Your task to perform on an android device: Clear the cart on newegg. Search for bose quietcomfort 35 on newegg, select the first entry, and add it to the cart. Image 0: 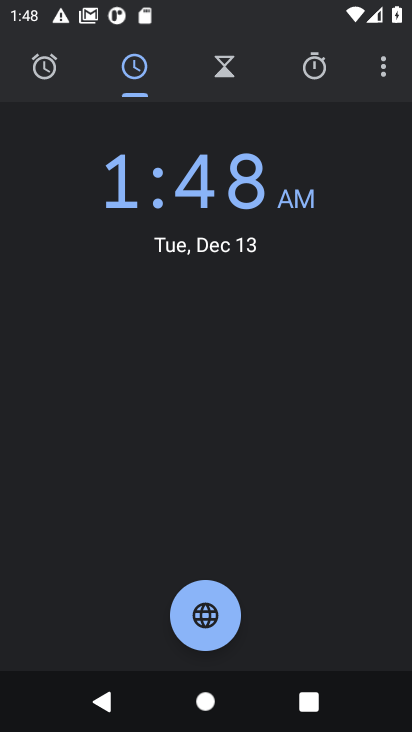
Step 0: press home button
Your task to perform on an android device: Clear the cart on newegg. Search for bose quietcomfort 35 on newegg, select the first entry, and add it to the cart. Image 1: 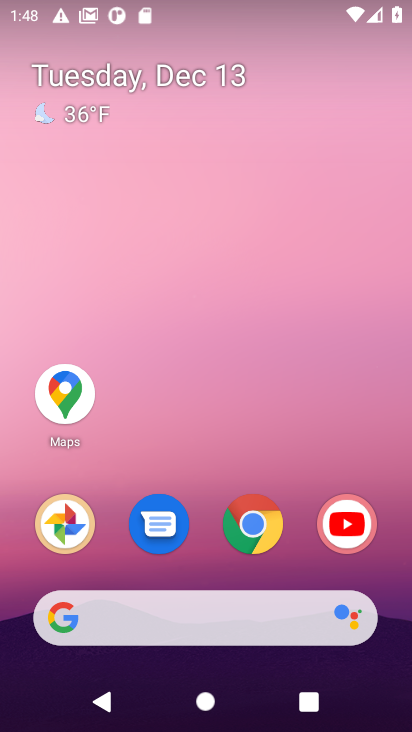
Step 1: click (254, 530)
Your task to perform on an android device: Clear the cart on newegg. Search for bose quietcomfort 35 on newegg, select the first entry, and add it to the cart. Image 2: 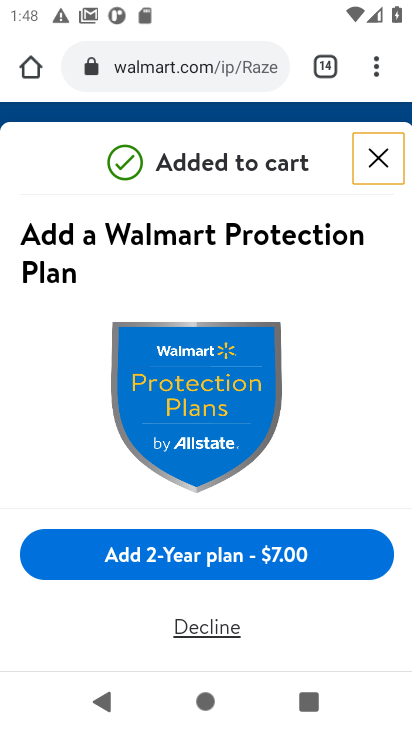
Step 2: click (210, 70)
Your task to perform on an android device: Clear the cart on newegg. Search for bose quietcomfort 35 on newegg, select the first entry, and add it to the cart. Image 3: 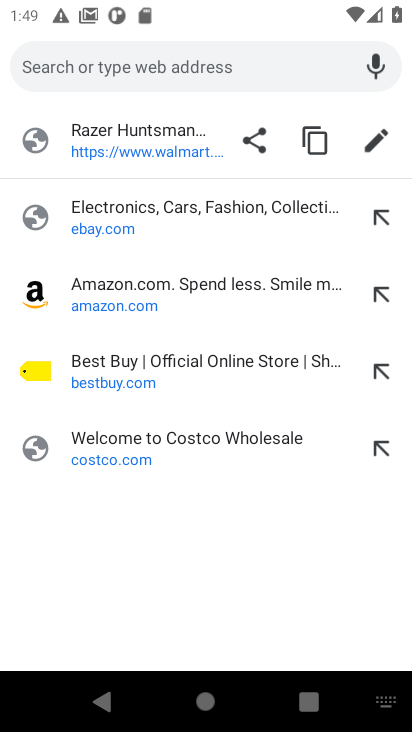
Step 3: type "newegg.com"
Your task to perform on an android device: Clear the cart on newegg. Search for bose quietcomfort 35 on newegg, select the first entry, and add it to the cart. Image 4: 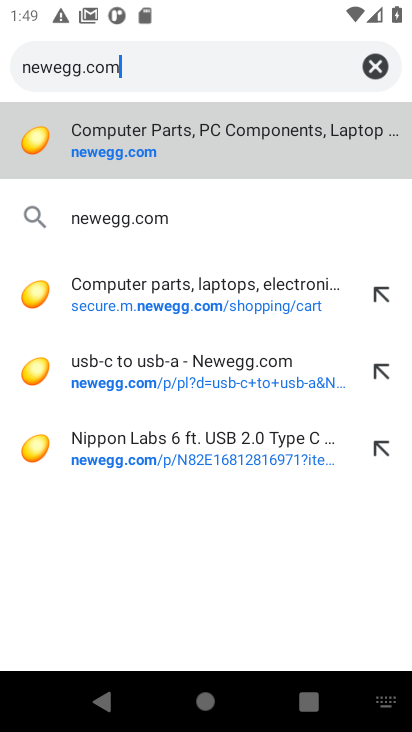
Step 4: click (111, 151)
Your task to perform on an android device: Clear the cart on newegg. Search for bose quietcomfort 35 on newegg, select the first entry, and add it to the cart. Image 5: 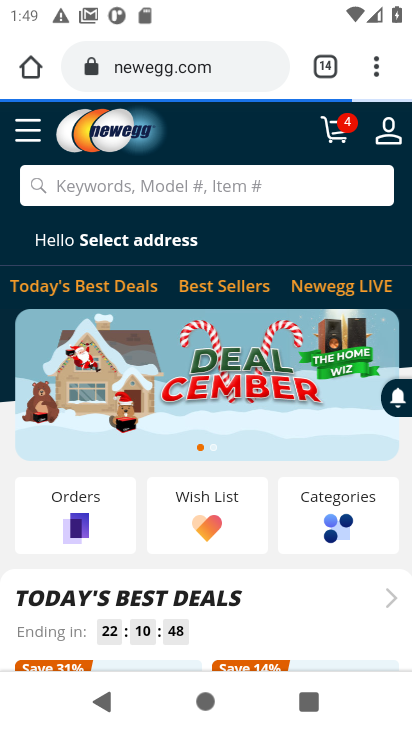
Step 5: click (337, 131)
Your task to perform on an android device: Clear the cart on newegg. Search for bose quietcomfort 35 on newegg, select the first entry, and add it to the cart. Image 6: 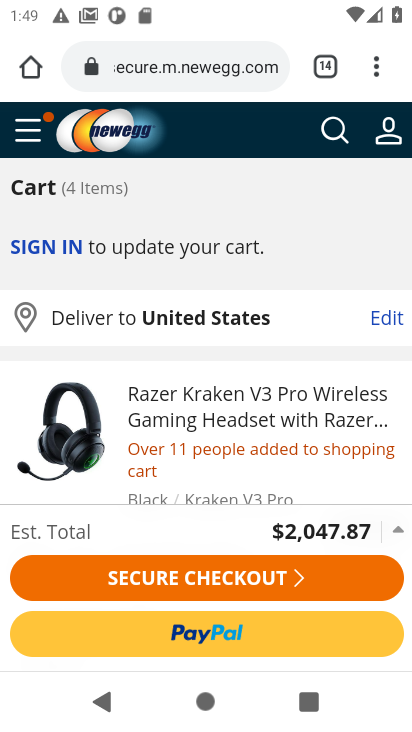
Step 6: drag from (184, 425) to (186, 256)
Your task to perform on an android device: Clear the cart on newegg. Search for bose quietcomfort 35 on newegg, select the first entry, and add it to the cart. Image 7: 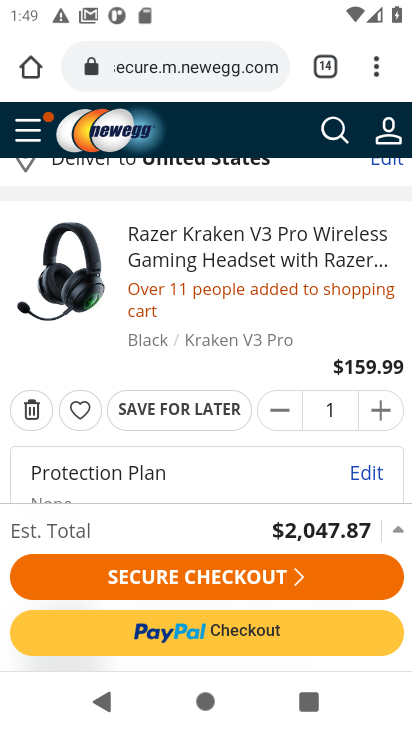
Step 7: click (30, 411)
Your task to perform on an android device: Clear the cart on newegg. Search for bose quietcomfort 35 on newegg, select the first entry, and add it to the cart. Image 8: 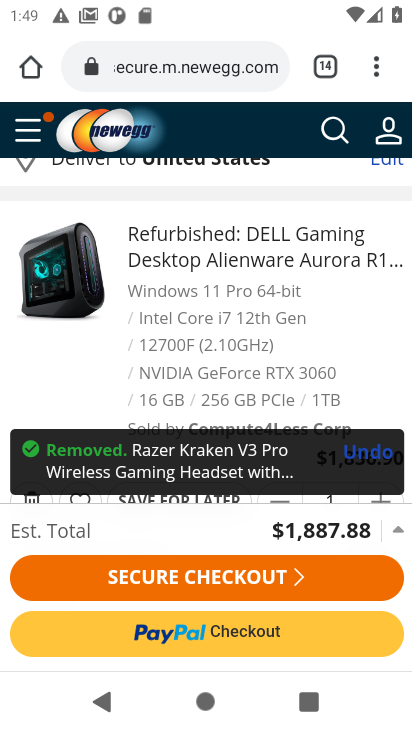
Step 8: drag from (240, 368) to (232, 233)
Your task to perform on an android device: Clear the cart on newegg. Search for bose quietcomfort 35 on newegg, select the first entry, and add it to the cart. Image 9: 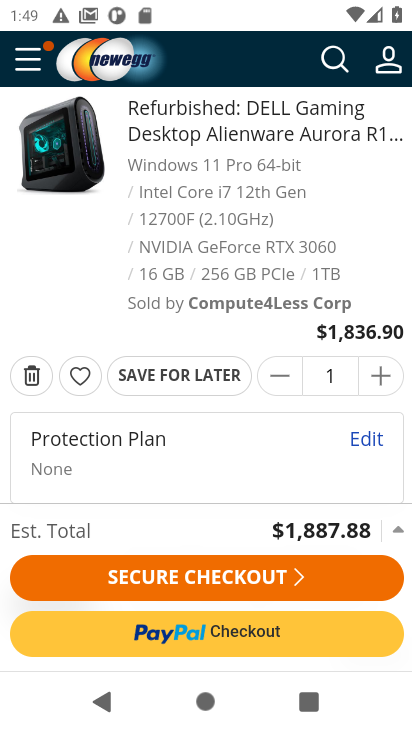
Step 9: click (27, 379)
Your task to perform on an android device: Clear the cart on newegg. Search for bose quietcomfort 35 on newegg, select the first entry, and add it to the cart. Image 10: 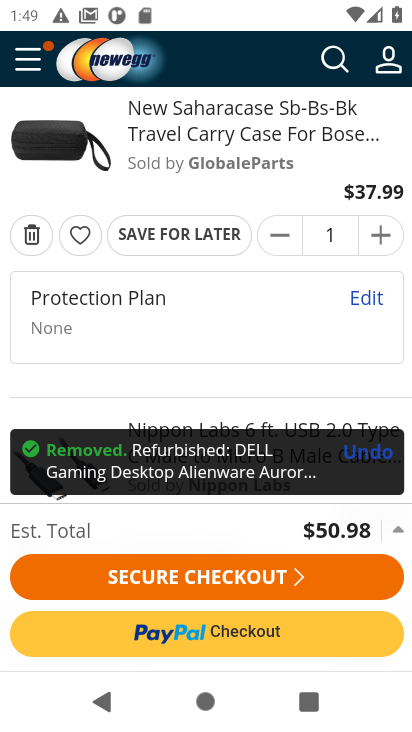
Step 10: click (31, 231)
Your task to perform on an android device: Clear the cart on newegg. Search for bose quietcomfort 35 on newegg, select the first entry, and add it to the cart. Image 11: 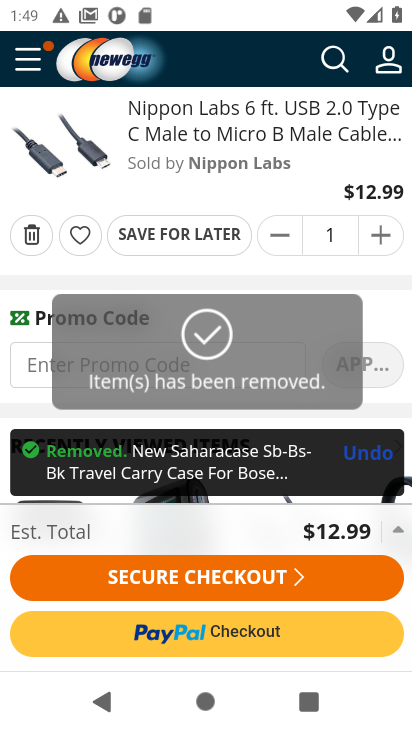
Step 11: click (28, 234)
Your task to perform on an android device: Clear the cart on newegg. Search for bose quietcomfort 35 on newegg, select the first entry, and add it to the cart. Image 12: 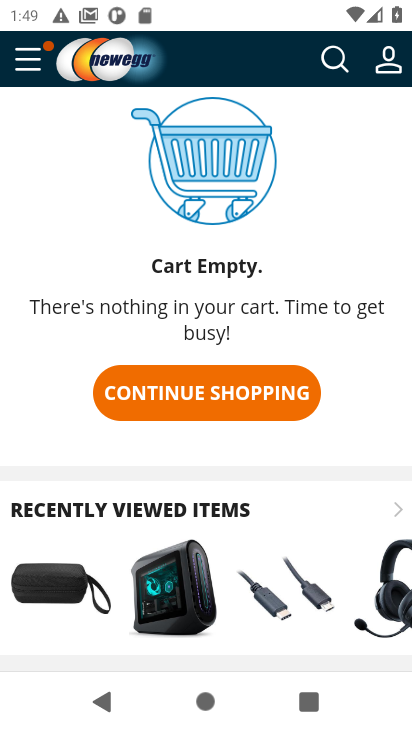
Step 12: click (340, 61)
Your task to perform on an android device: Clear the cart on newegg. Search for bose quietcomfort 35 on newegg, select the first entry, and add it to the cart. Image 13: 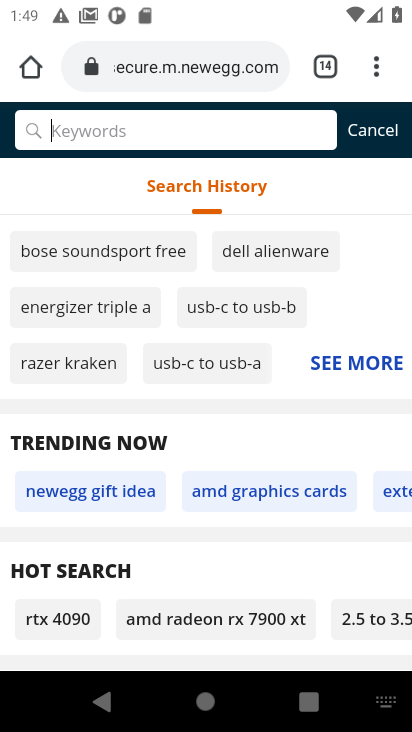
Step 13: type "bose quietcomfort 35"
Your task to perform on an android device: Clear the cart on newegg. Search for bose quietcomfort 35 on newegg, select the first entry, and add it to the cart. Image 14: 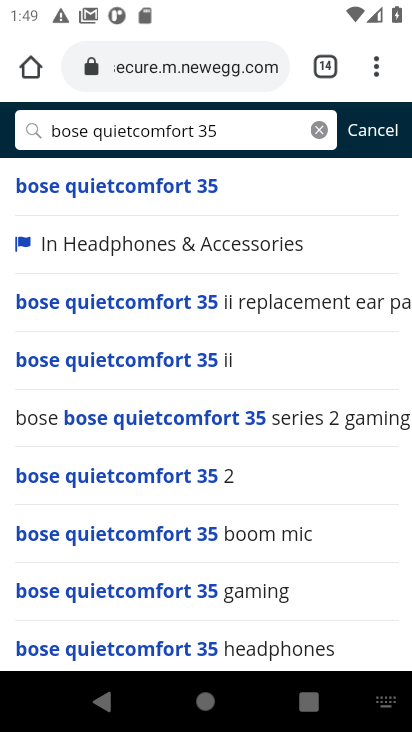
Step 14: click (146, 189)
Your task to perform on an android device: Clear the cart on newegg. Search for bose quietcomfort 35 on newegg, select the first entry, and add it to the cart. Image 15: 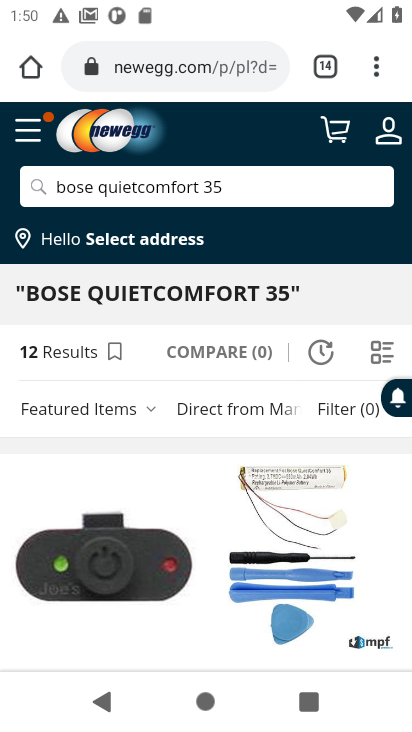
Step 15: drag from (215, 577) to (210, 315)
Your task to perform on an android device: Clear the cart on newegg. Search for bose quietcomfort 35 on newegg, select the first entry, and add it to the cart. Image 16: 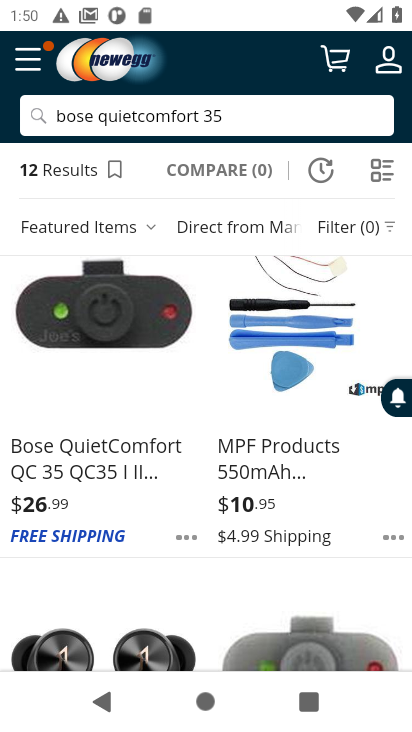
Step 16: click (91, 462)
Your task to perform on an android device: Clear the cart on newegg. Search for bose quietcomfort 35 on newegg, select the first entry, and add it to the cart. Image 17: 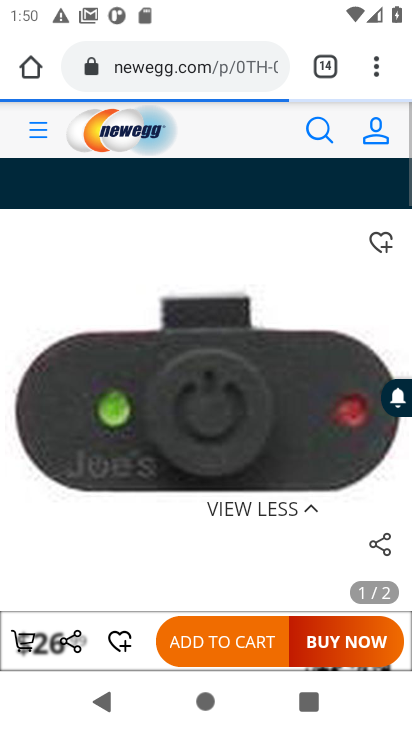
Step 17: click (215, 641)
Your task to perform on an android device: Clear the cart on newegg. Search for bose quietcomfort 35 on newegg, select the first entry, and add it to the cart. Image 18: 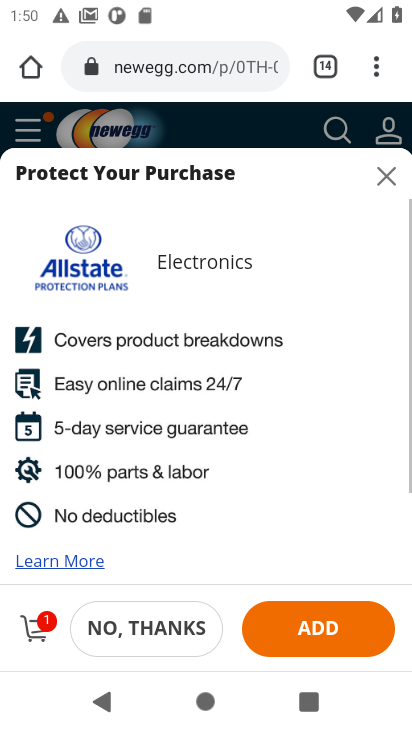
Step 18: task complete